Your task to perform on an android device: turn on notifications settings in the gmail app Image 0: 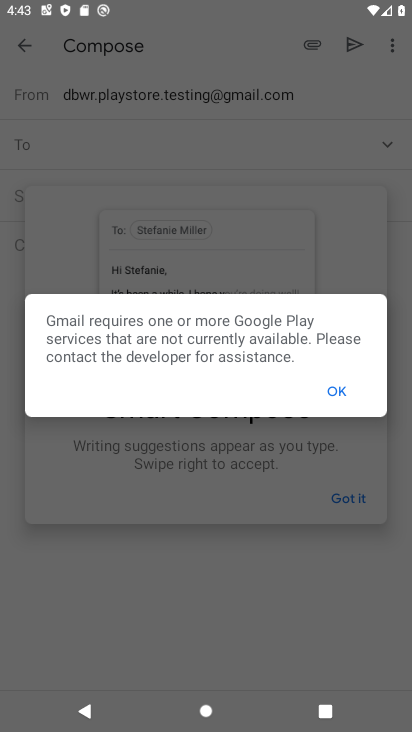
Step 0: click (341, 391)
Your task to perform on an android device: turn on notifications settings in the gmail app Image 1: 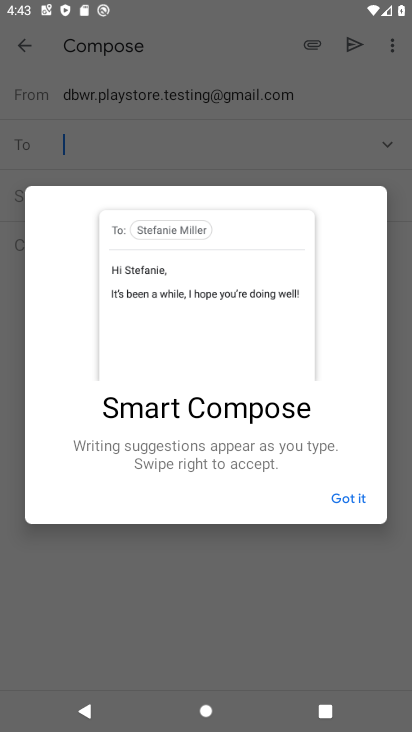
Step 1: press back button
Your task to perform on an android device: turn on notifications settings in the gmail app Image 2: 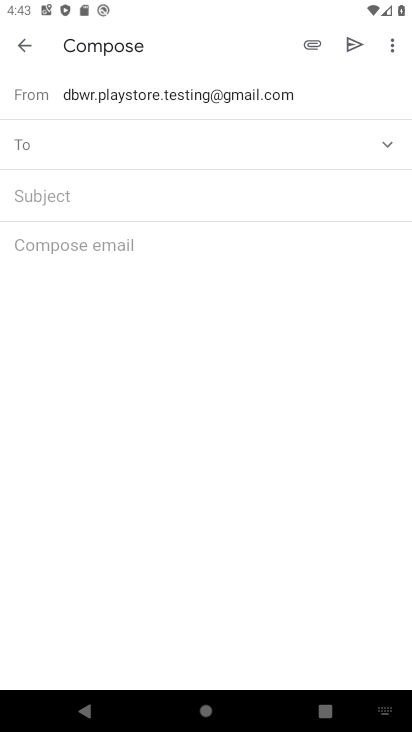
Step 2: press home button
Your task to perform on an android device: turn on notifications settings in the gmail app Image 3: 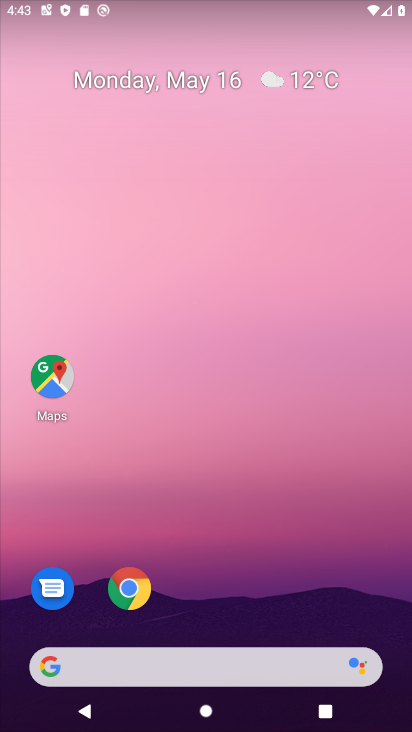
Step 3: drag from (207, 601) to (242, 165)
Your task to perform on an android device: turn on notifications settings in the gmail app Image 4: 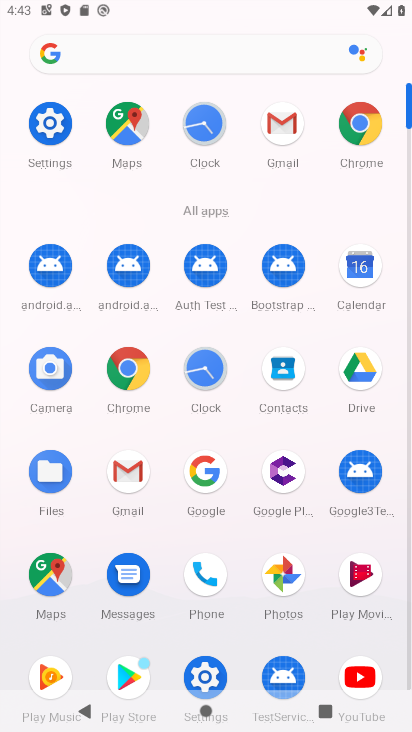
Step 4: click (277, 133)
Your task to perform on an android device: turn on notifications settings in the gmail app Image 5: 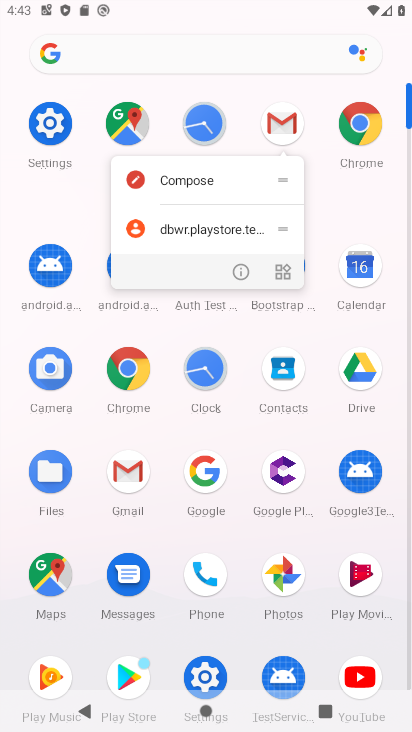
Step 5: click (243, 283)
Your task to perform on an android device: turn on notifications settings in the gmail app Image 6: 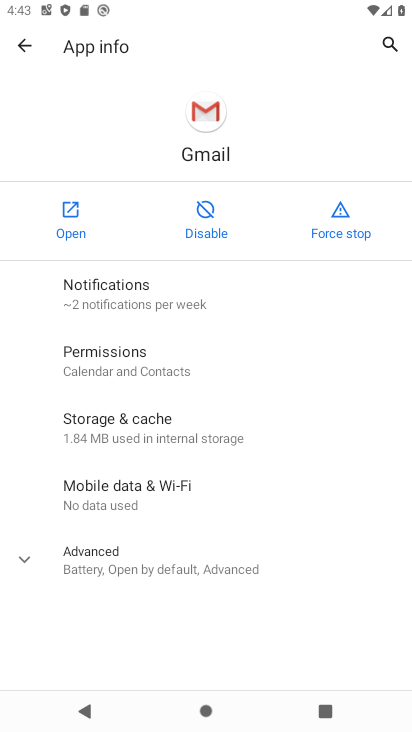
Step 6: click (161, 299)
Your task to perform on an android device: turn on notifications settings in the gmail app Image 7: 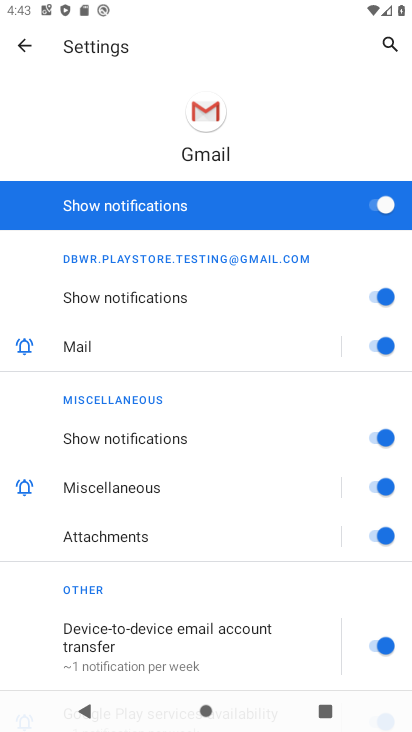
Step 7: task complete